Your task to perform on an android device: Go to Amazon Image 0: 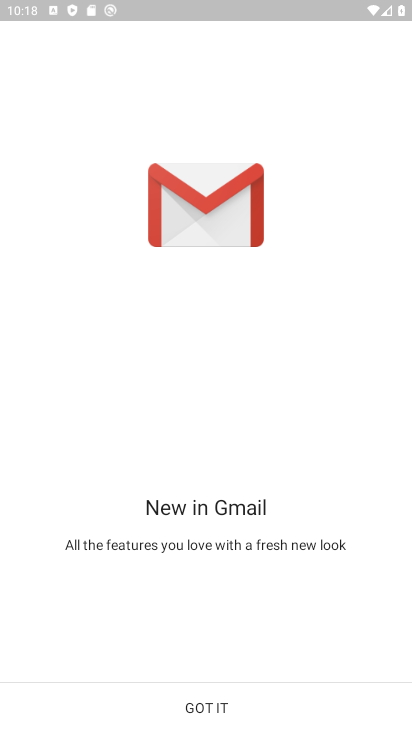
Step 0: press home button
Your task to perform on an android device: Go to Amazon Image 1: 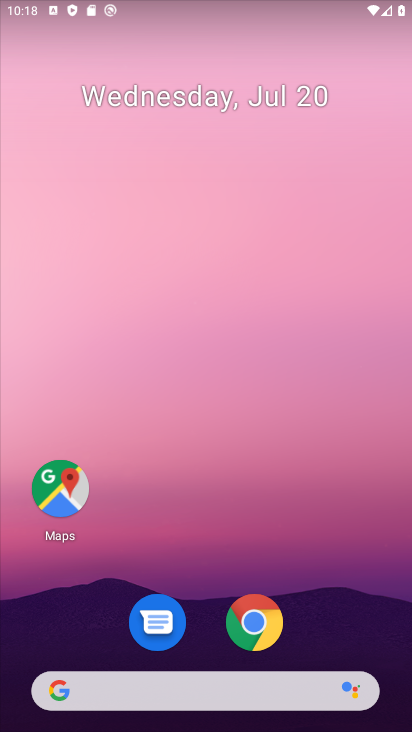
Step 1: drag from (170, 613) to (172, 165)
Your task to perform on an android device: Go to Amazon Image 2: 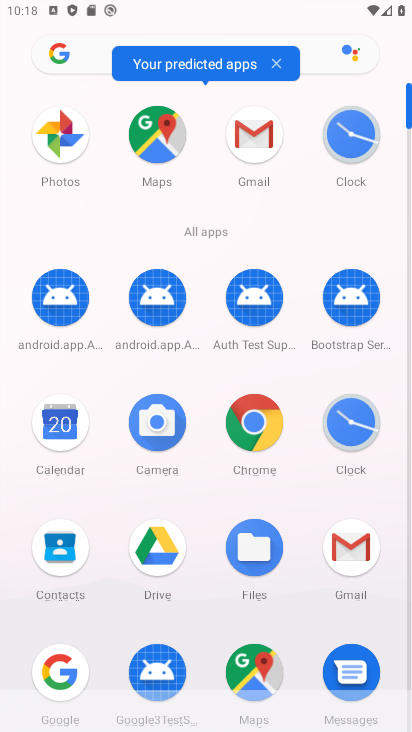
Step 2: drag from (193, 607) to (174, 273)
Your task to perform on an android device: Go to Amazon Image 3: 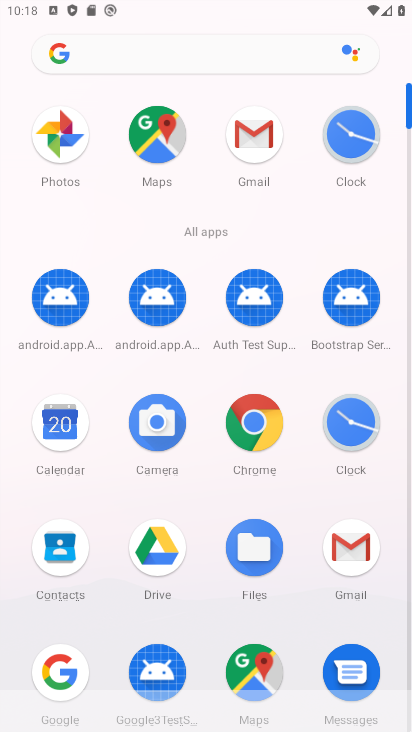
Step 3: click (248, 463)
Your task to perform on an android device: Go to Amazon Image 4: 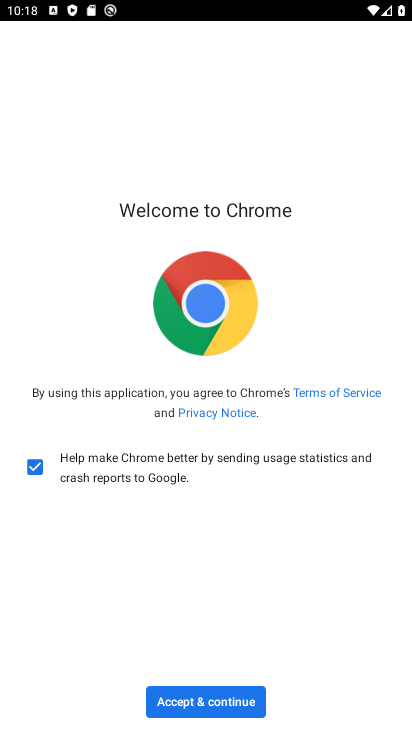
Step 4: click (201, 720)
Your task to perform on an android device: Go to Amazon Image 5: 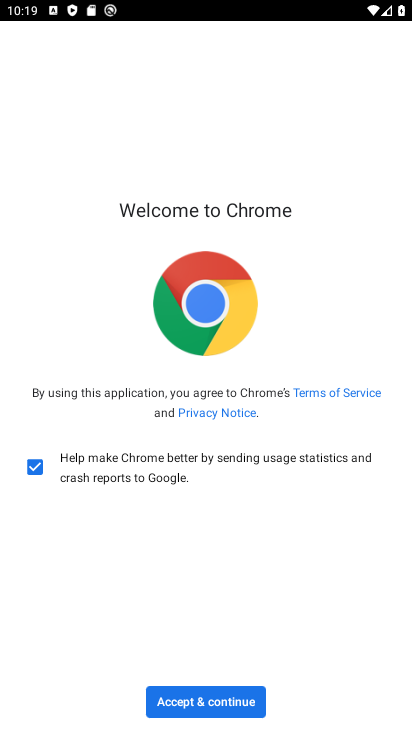
Step 5: click (245, 703)
Your task to perform on an android device: Go to Amazon Image 6: 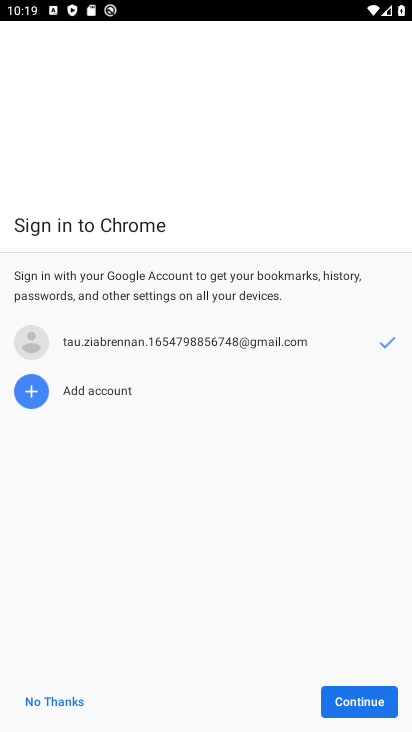
Step 6: click (376, 709)
Your task to perform on an android device: Go to Amazon Image 7: 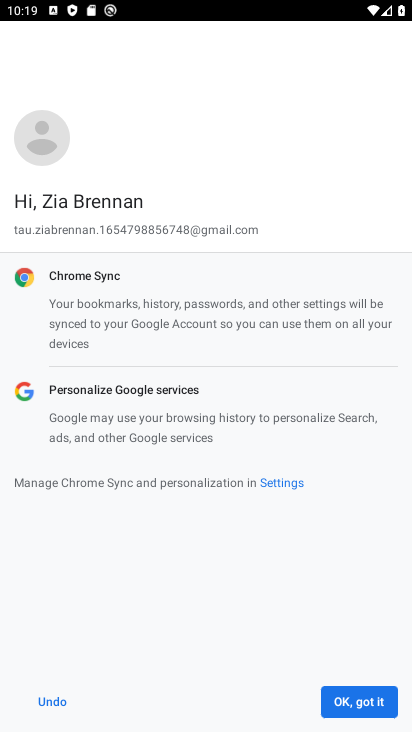
Step 7: click (376, 709)
Your task to perform on an android device: Go to Amazon Image 8: 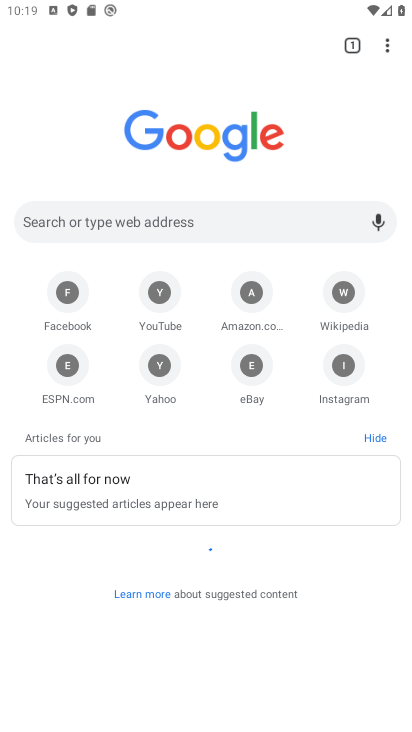
Step 8: click (246, 302)
Your task to perform on an android device: Go to Amazon Image 9: 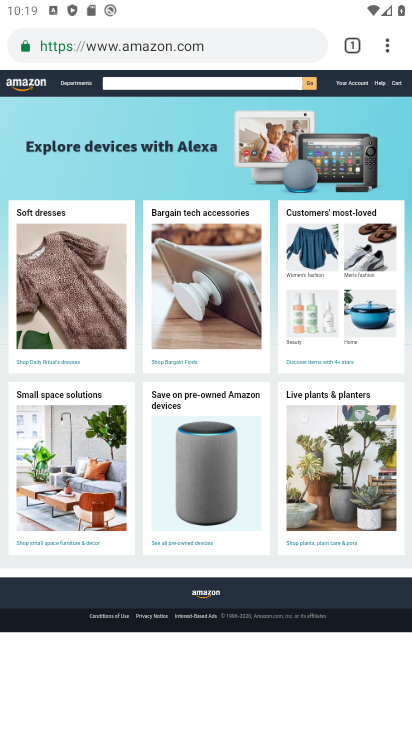
Step 9: task complete